Your task to perform on an android device: set default search engine in the chrome app Image 0: 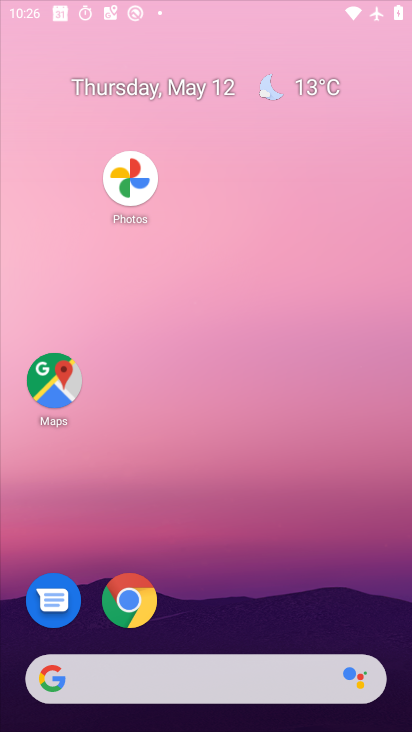
Step 0: drag from (327, 598) to (81, 34)
Your task to perform on an android device: set default search engine in the chrome app Image 1: 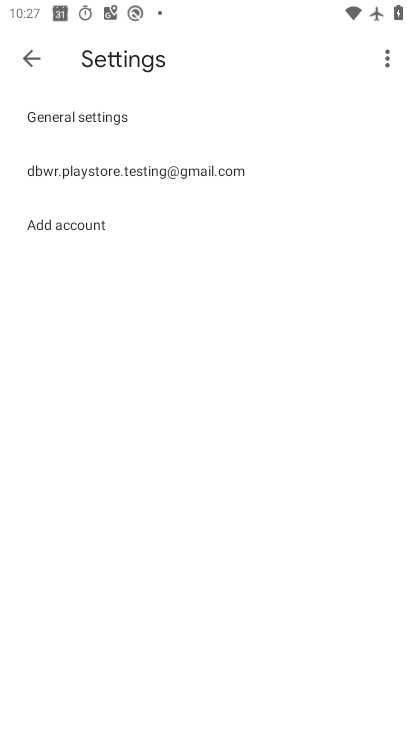
Step 1: click (30, 64)
Your task to perform on an android device: set default search engine in the chrome app Image 2: 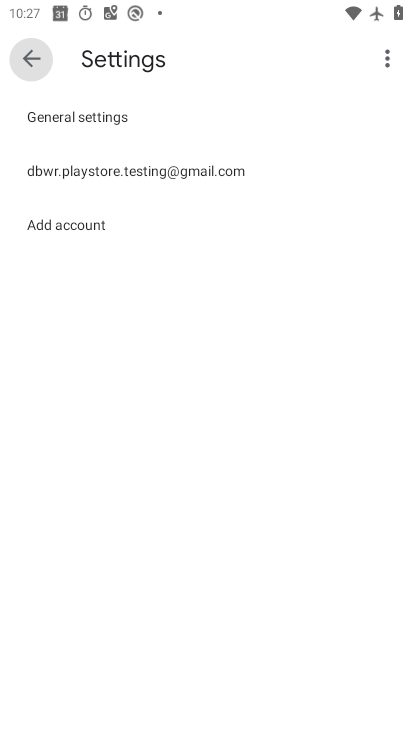
Step 2: click (28, 60)
Your task to perform on an android device: set default search engine in the chrome app Image 3: 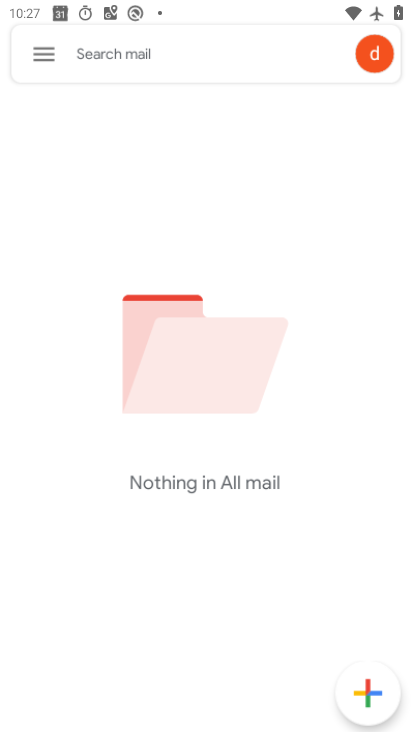
Step 3: click (27, 59)
Your task to perform on an android device: set default search engine in the chrome app Image 4: 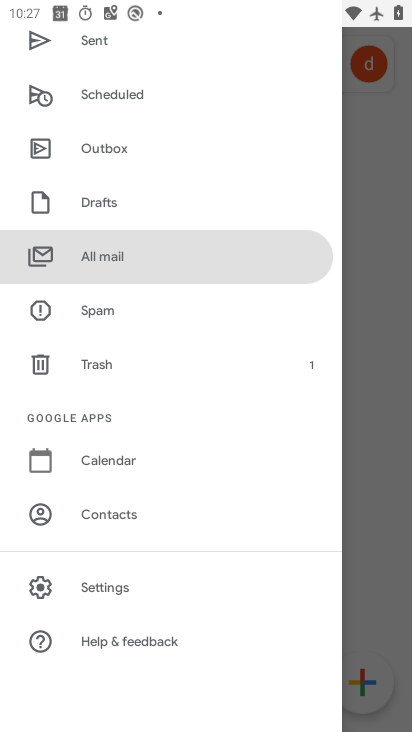
Step 4: press back button
Your task to perform on an android device: set default search engine in the chrome app Image 5: 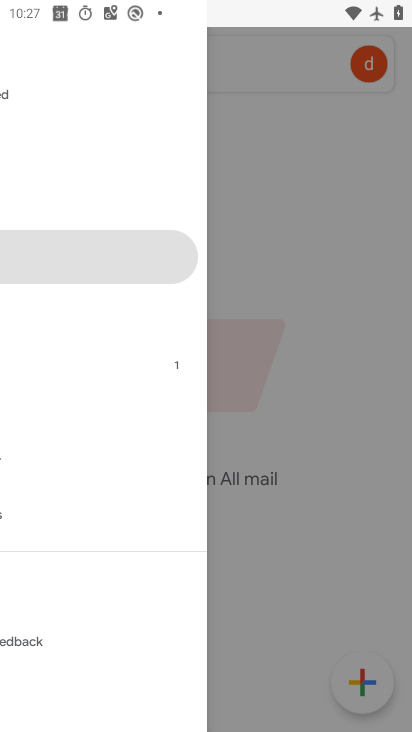
Step 5: press back button
Your task to perform on an android device: set default search engine in the chrome app Image 6: 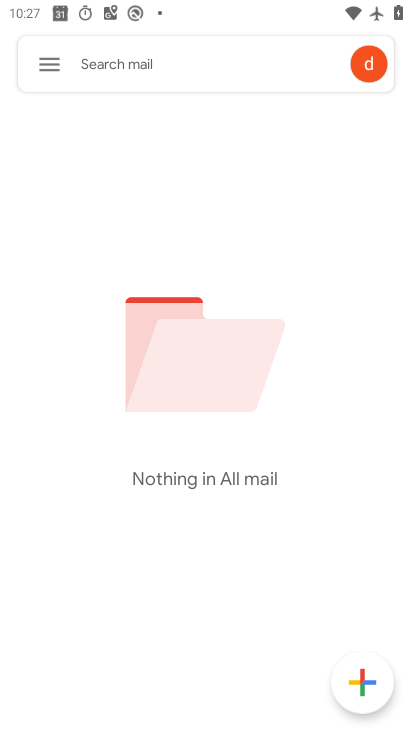
Step 6: press back button
Your task to perform on an android device: set default search engine in the chrome app Image 7: 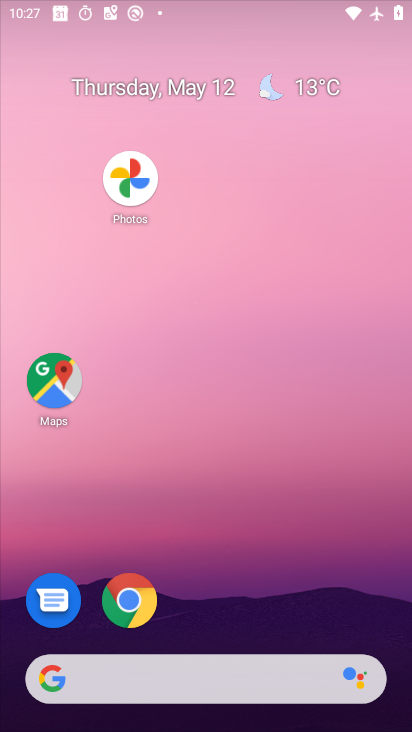
Step 7: press home button
Your task to perform on an android device: set default search engine in the chrome app Image 8: 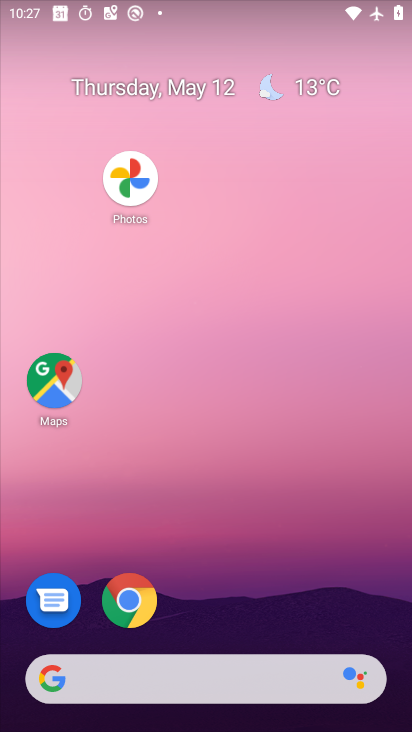
Step 8: drag from (293, 627) to (101, 148)
Your task to perform on an android device: set default search engine in the chrome app Image 9: 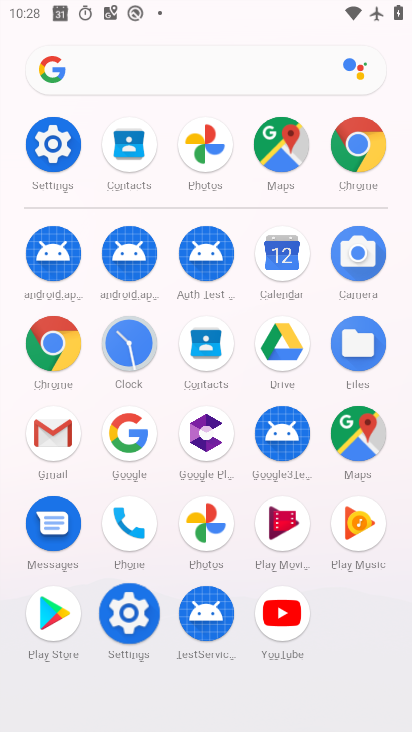
Step 9: click (363, 140)
Your task to perform on an android device: set default search engine in the chrome app Image 10: 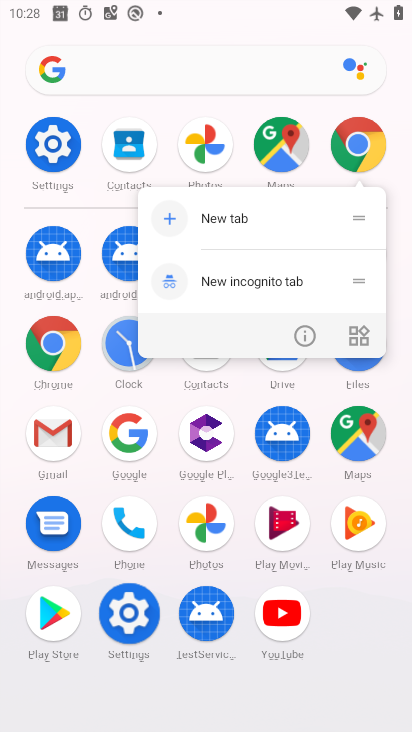
Step 10: click (363, 140)
Your task to perform on an android device: set default search engine in the chrome app Image 11: 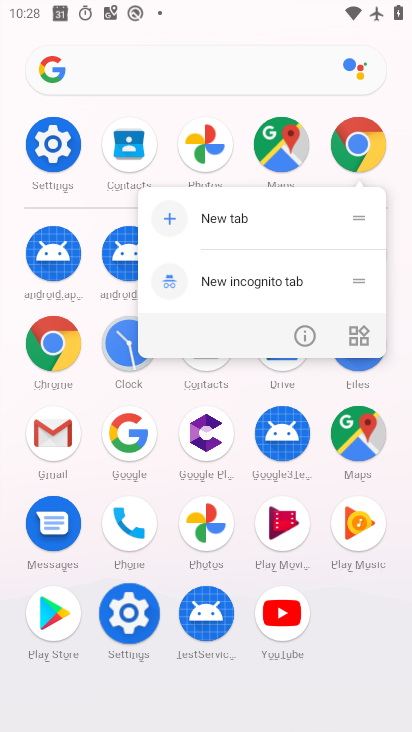
Step 11: click (359, 137)
Your task to perform on an android device: set default search engine in the chrome app Image 12: 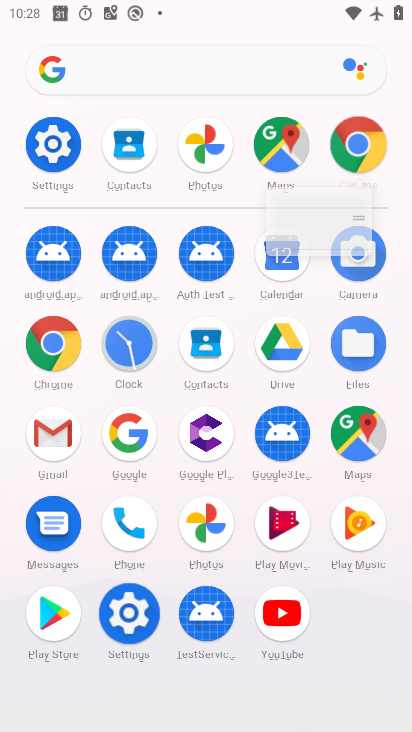
Step 12: click (359, 137)
Your task to perform on an android device: set default search engine in the chrome app Image 13: 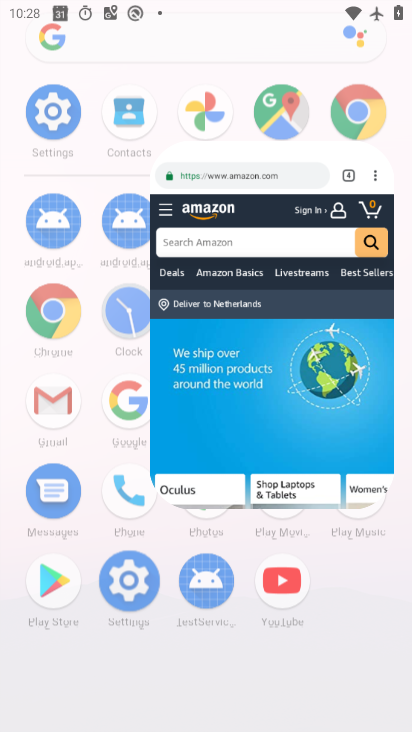
Step 13: click (358, 136)
Your task to perform on an android device: set default search engine in the chrome app Image 14: 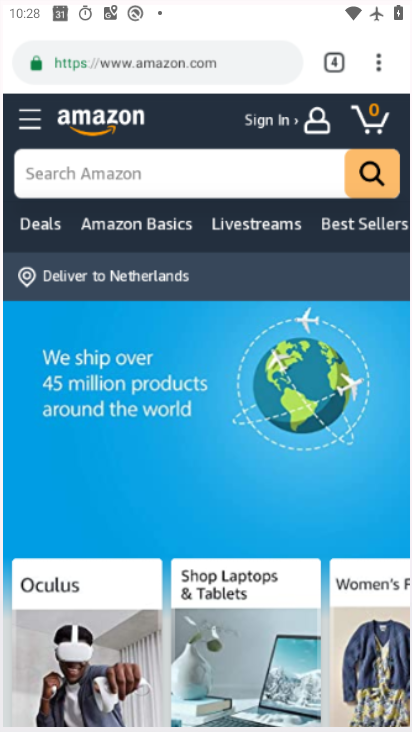
Step 14: click (357, 136)
Your task to perform on an android device: set default search engine in the chrome app Image 15: 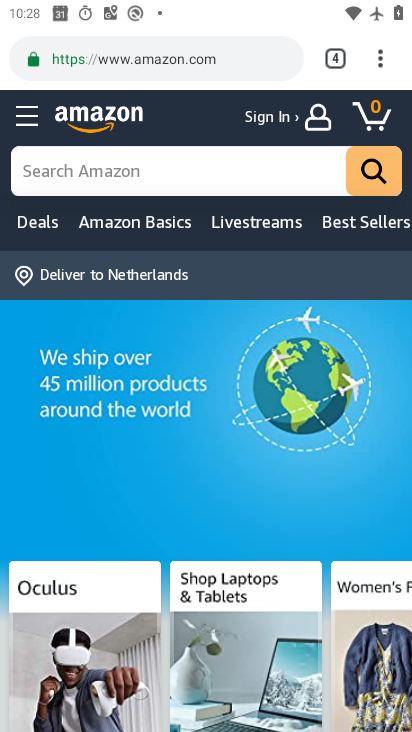
Step 15: drag from (378, 57) to (161, 615)
Your task to perform on an android device: set default search engine in the chrome app Image 16: 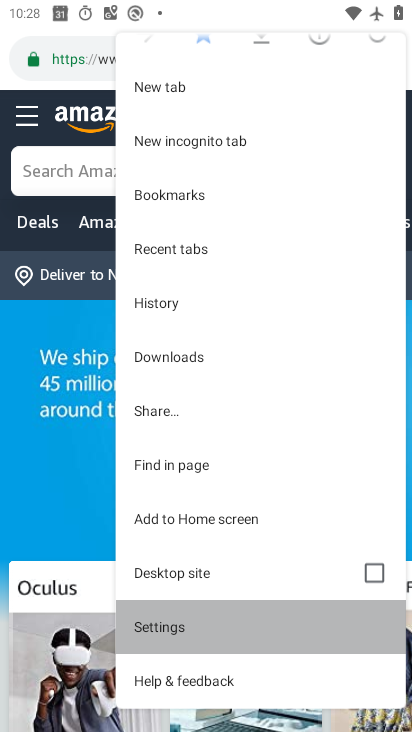
Step 16: click (171, 623)
Your task to perform on an android device: set default search engine in the chrome app Image 17: 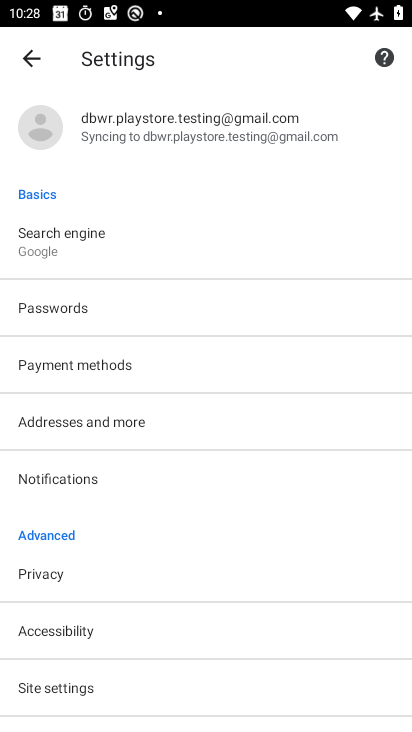
Step 17: click (31, 239)
Your task to perform on an android device: set default search engine in the chrome app Image 18: 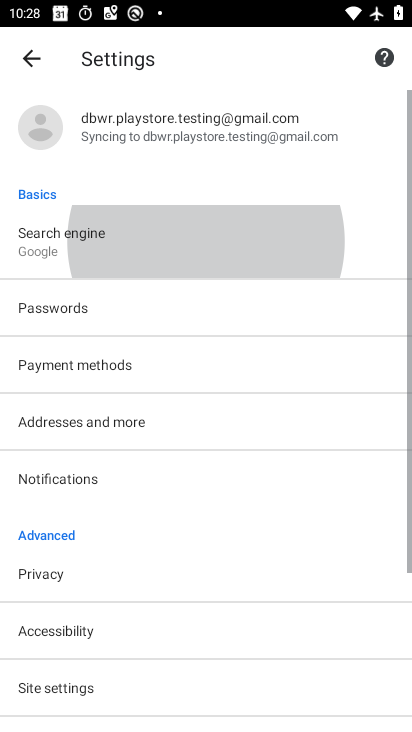
Step 18: click (37, 232)
Your task to perform on an android device: set default search engine in the chrome app Image 19: 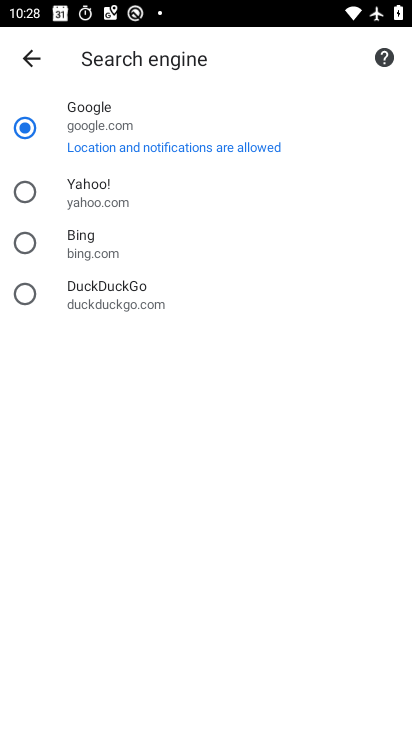
Step 19: click (25, 202)
Your task to perform on an android device: set default search engine in the chrome app Image 20: 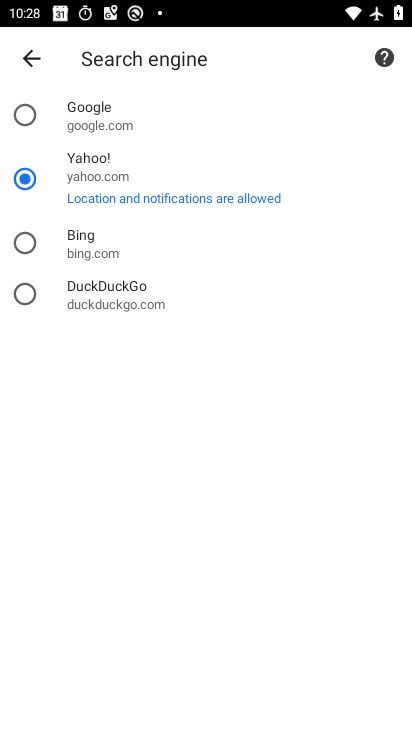
Step 20: click (27, 113)
Your task to perform on an android device: set default search engine in the chrome app Image 21: 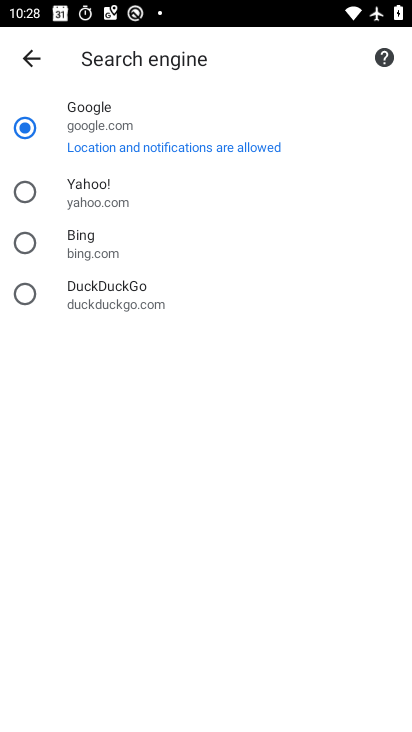
Step 21: task complete